Your task to perform on an android device: read, delete, or share a saved page in the chrome app Image 0: 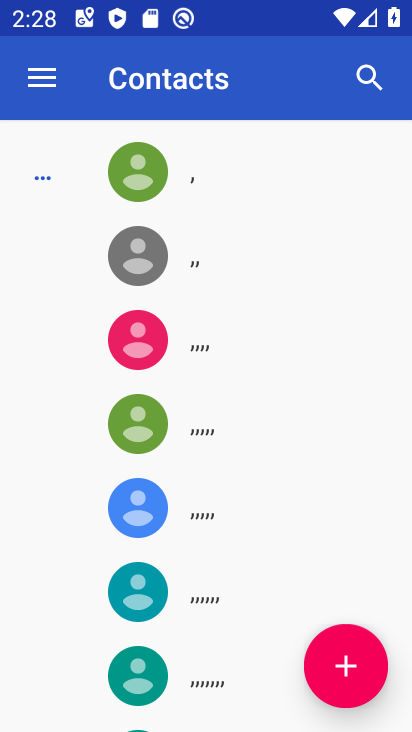
Step 0: press home button
Your task to perform on an android device: read, delete, or share a saved page in the chrome app Image 1: 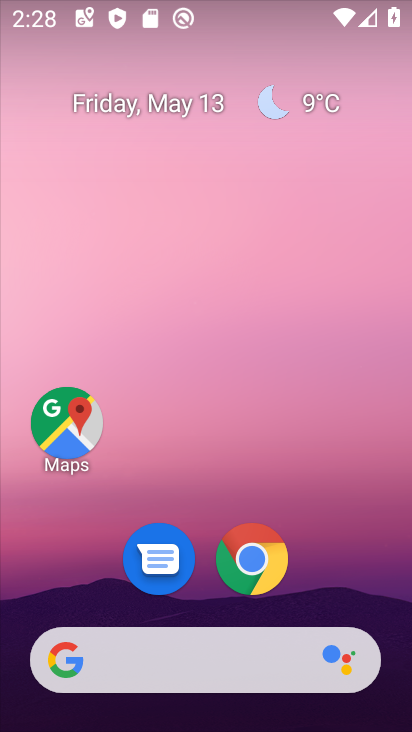
Step 1: click (249, 571)
Your task to perform on an android device: read, delete, or share a saved page in the chrome app Image 2: 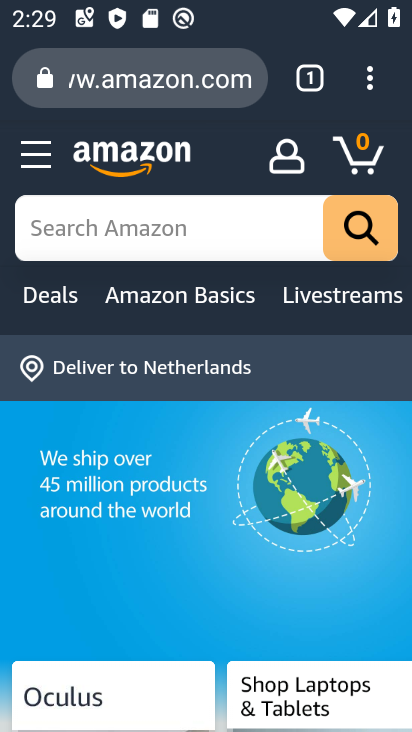
Step 2: task complete